Your task to perform on an android device: When is my next meeting? Image 0: 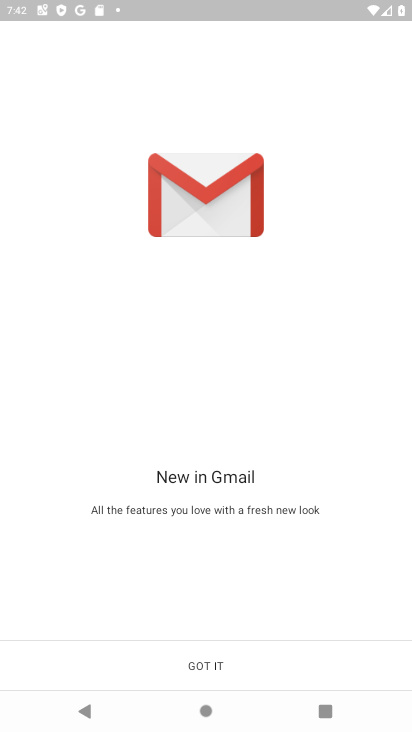
Step 0: press home button
Your task to perform on an android device: When is my next meeting? Image 1: 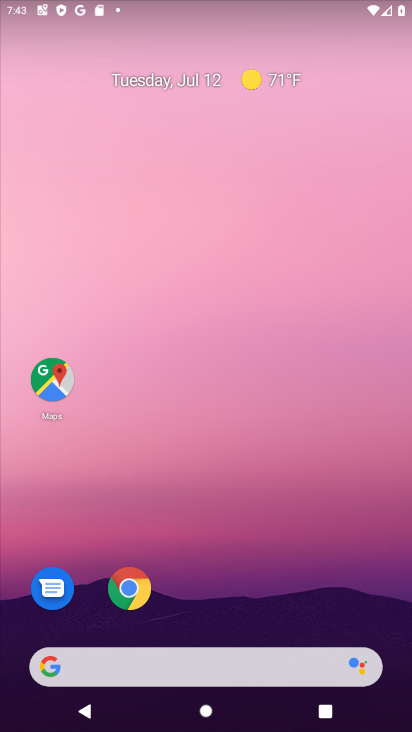
Step 1: drag from (146, 449) to (312, 185)
Your task to perform on an android device: When is my next meeting? Image 2: 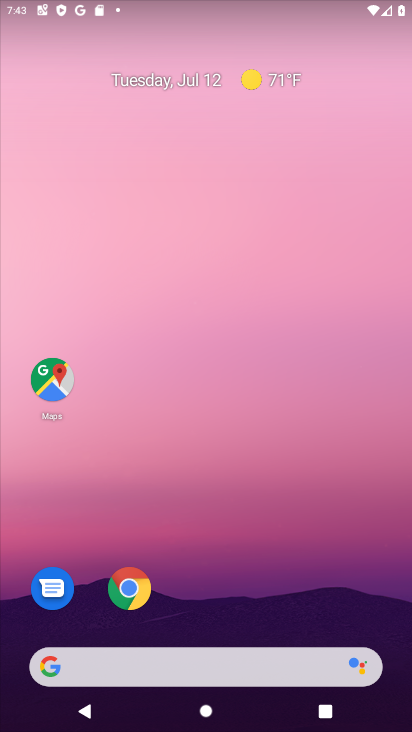
Step 2: drag from (24, 704) to (318, 56)
Your task to perform on an android device: When is my next meeting? Image 3: 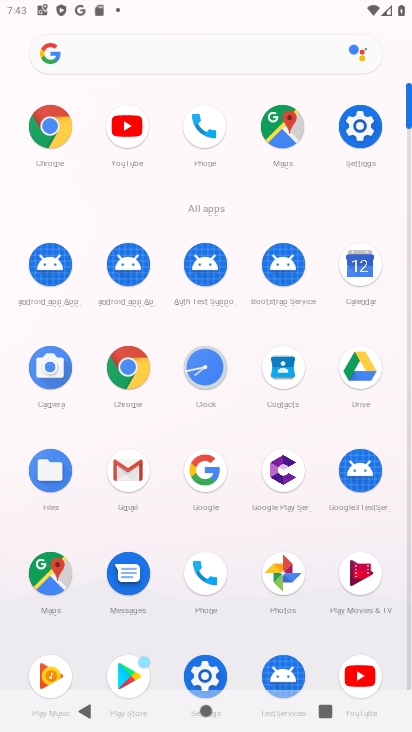
Step 3: click (376, 270)
Your task to perform on an android device: When is my next meeting? Image 4: 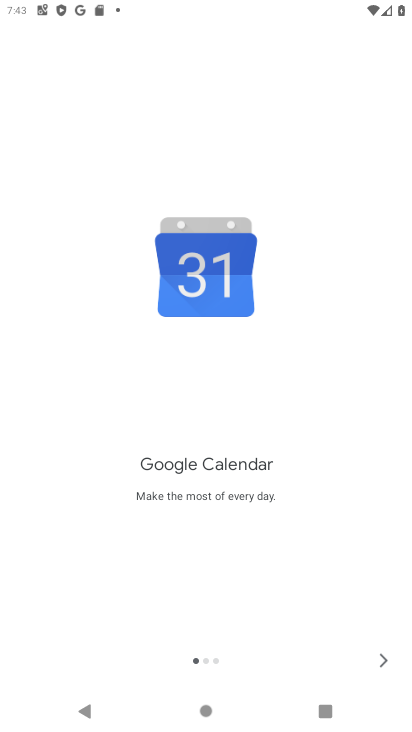
Step 4: click (380, 657)
Your task to perform on an android device: When is my next meeting? Image 5: 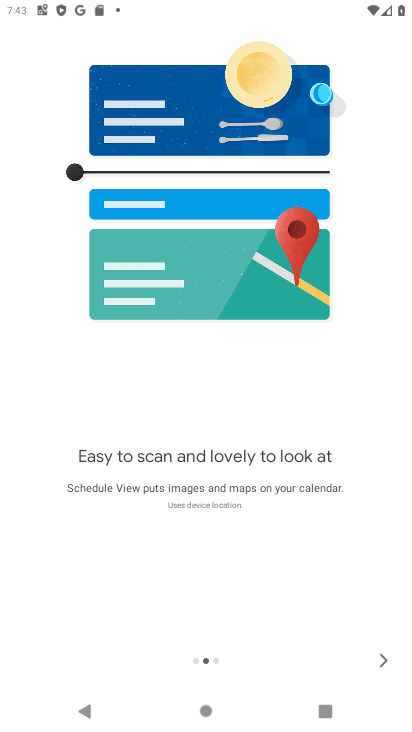
Step 5: click (375, 644)
Your task to perform on an android device: When is my next meeting? Image 6: 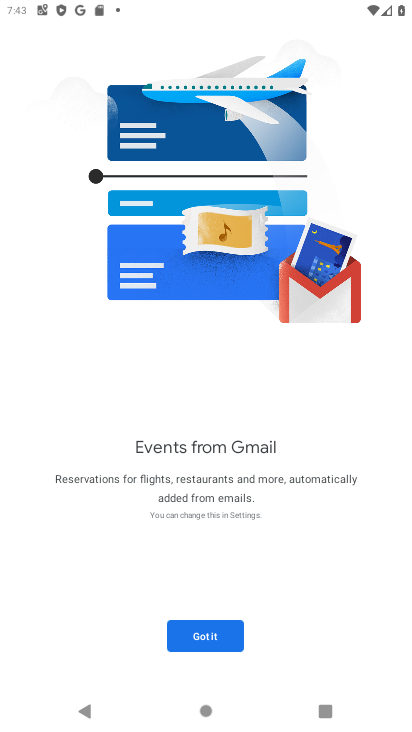
Step 6: click (225, 646)
Your task to perform on an android device: When is my next meeting? Image 7: 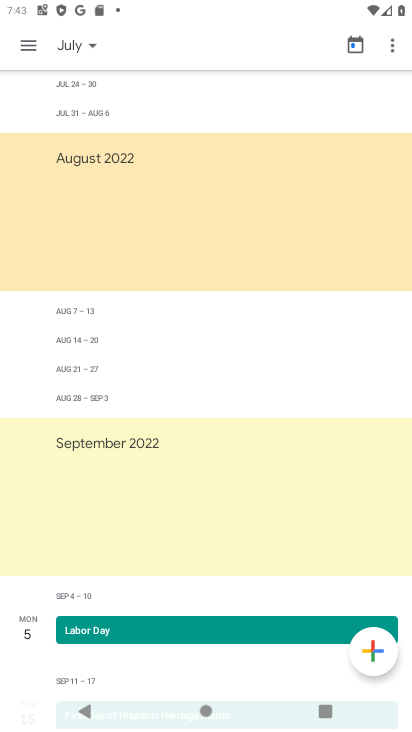
Step 7: click (27, 43)
Your task to perform on an android device: When is my next meeting? Image 8: 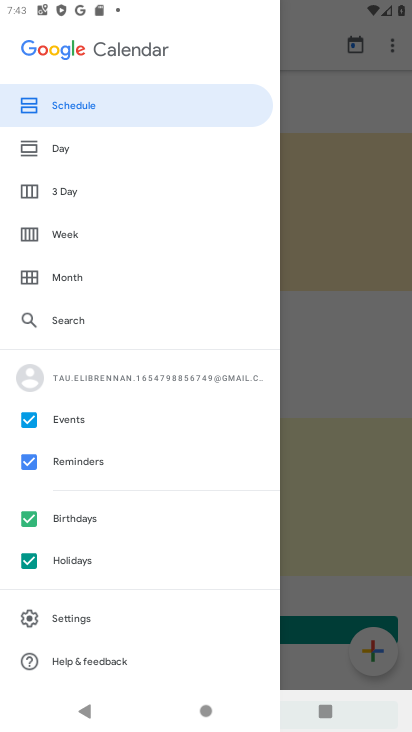
Step 8: click (73, 149)
Your task to perform on an android device: When is my next meeting? Image 9: 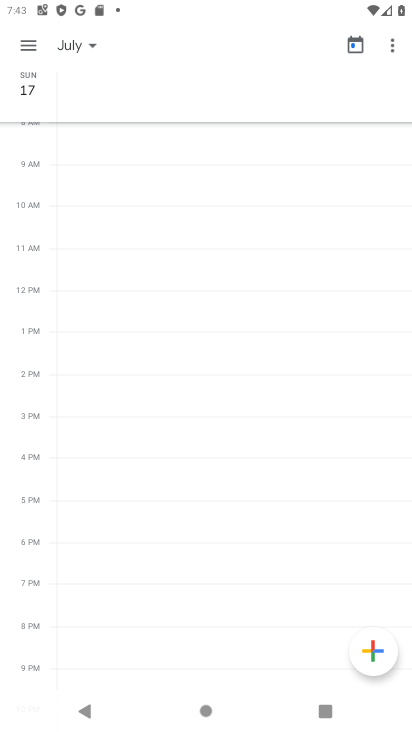
Step 9: task complete